Your task to perform on an android device: Turn on the flashlight Image 0: 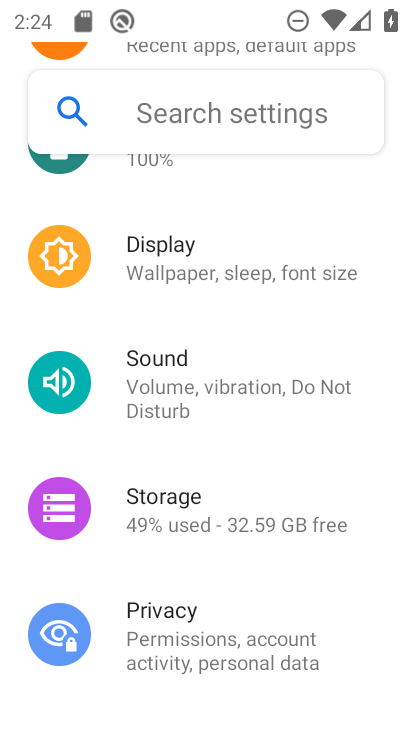
Step 0: press home button
Your task to perform on an android device: Turn on the flashlight Image 1: 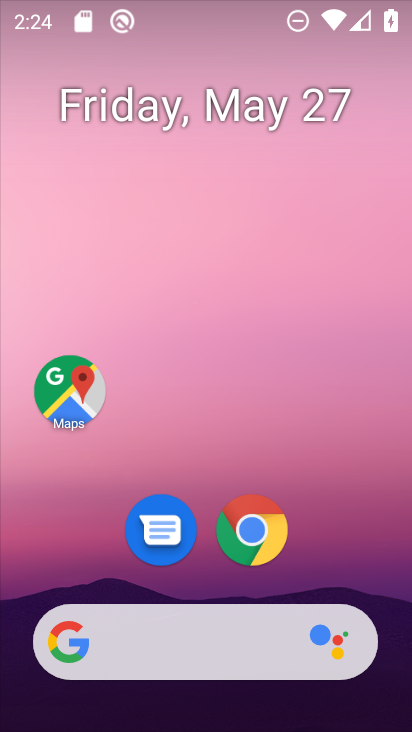
Step 1: drag from (183, 19) to (148, 713)
Your task to perform on an android device: Turn on the flashlight Image 2: 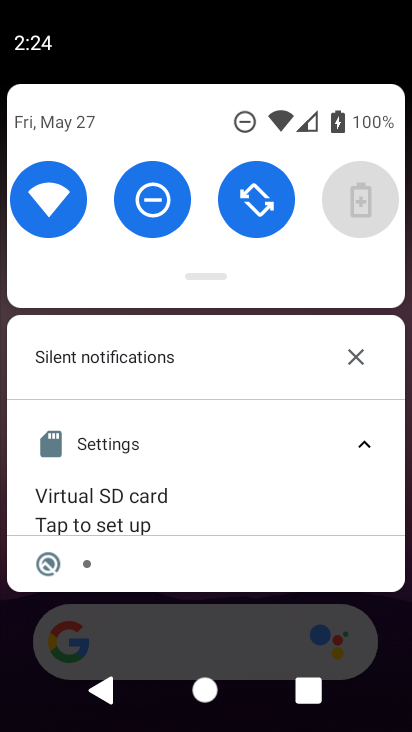
Step 2: drag from (213, 283) to (171, 656)
Your task to perform on an android device: Turn on the flashlight Image 3: 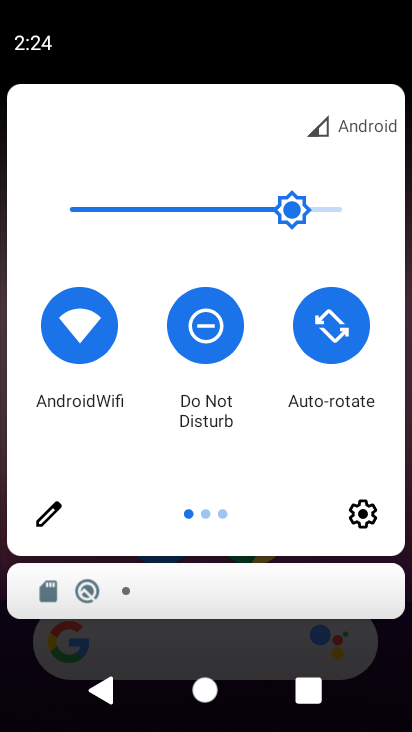
Step 3: click (48, 520)
Your task to perform on an android device: Turn on the flashlight Image 4: 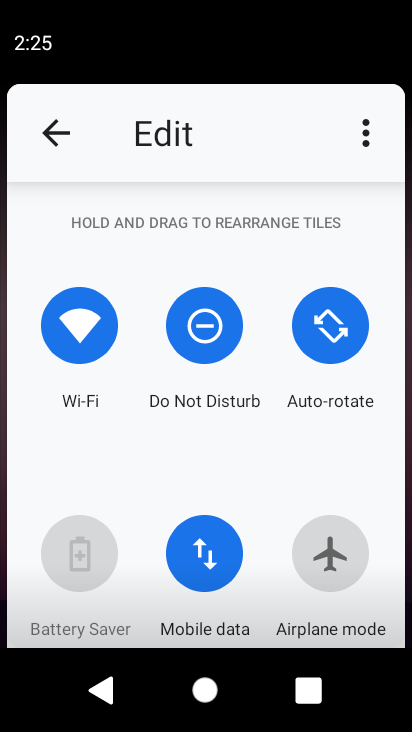
Step 4: task complete